Your task to perform on an android device: Toggle the flashlight Image 0: 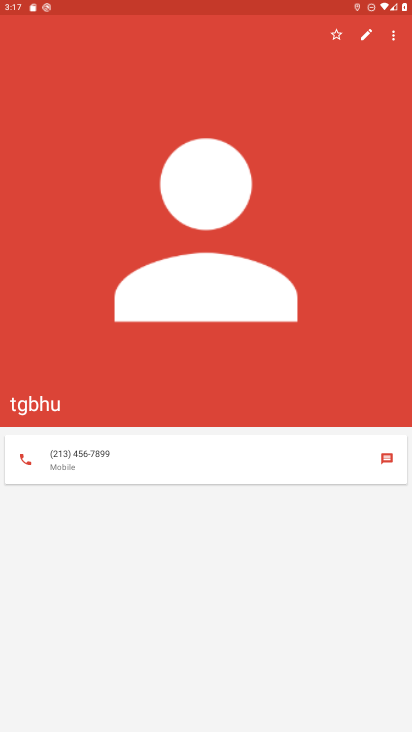
Step 0: press home button
Your task to perform on an android device: Toggle the flashlight Image 1: 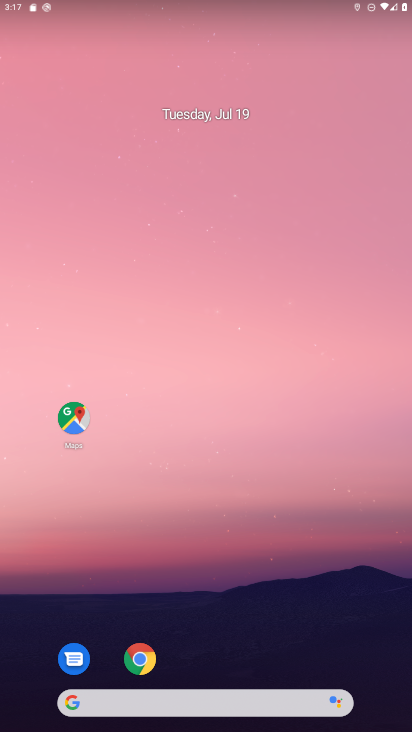
Step 1: drag from (304, 606) to (341, 282)
Your task to perform on an android device: Toggle the flashlight Image 2: 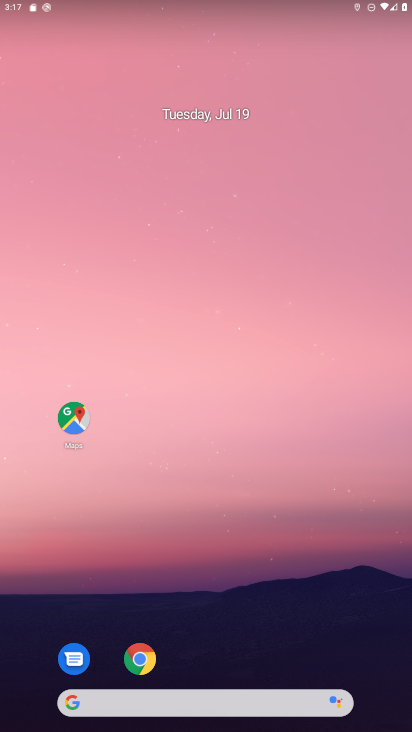
Step 2: drag from (204, 626) to (285, 15)
Your task to perform on an android device: Toggle the flashlight Image 3: 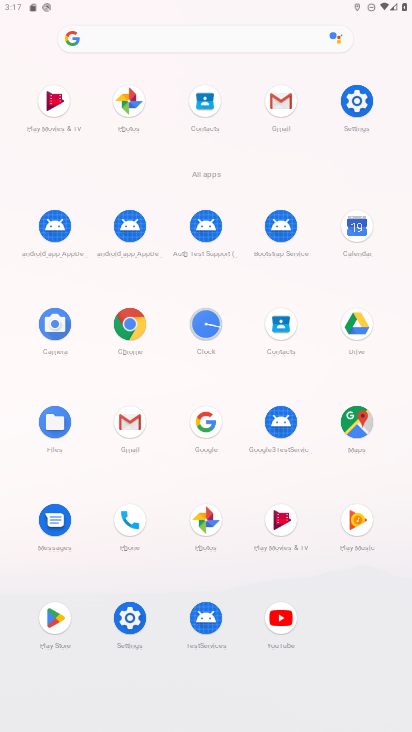
Step 3: click (123, 613)
Your task to perform on an android device: Toggle the flashlight Image 4: 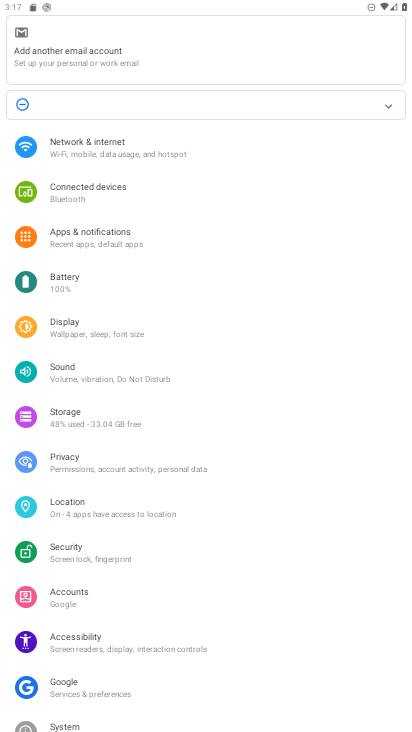
Step 4: task complete